Your task to perform on an android device: Go to accessibility settings Image 0: 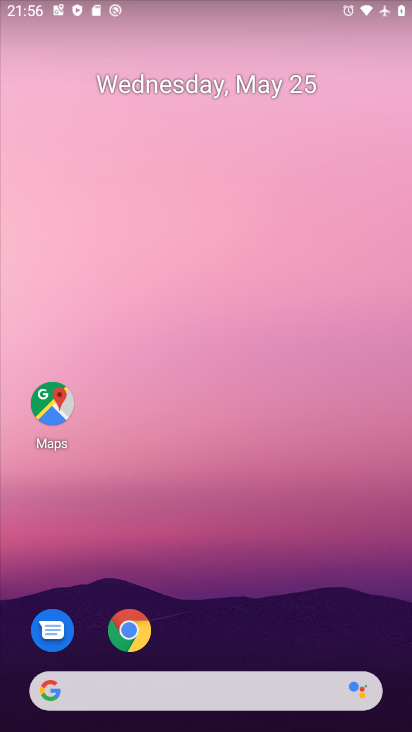
Step 0: drag from (188, 620) to (195, 271)
Your task to perform on an android device: Go to accessibility settings Image 1: 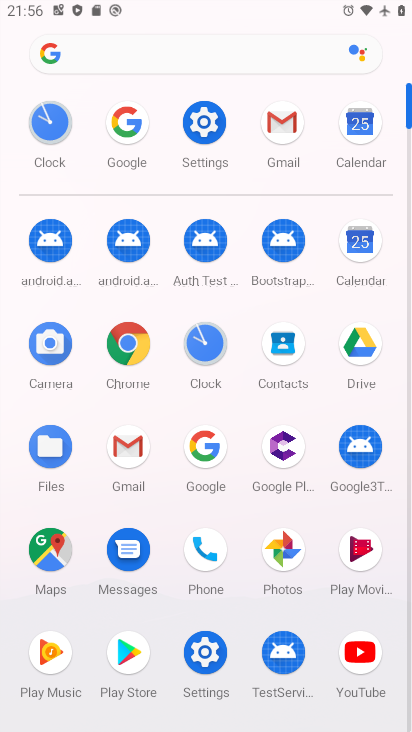
Step 1: click (213, 131)
Your task to perform on an android device: Go to accessibility settings Image 2: 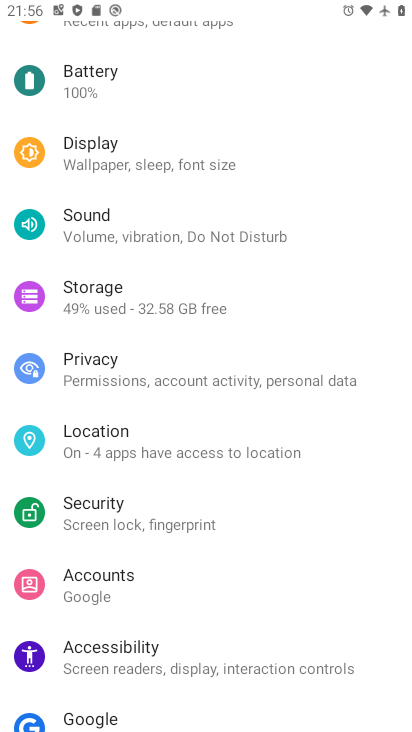
Step 2: click (212, 651)
Your task to perform on an android device: Go to accessibility settings Image 3: 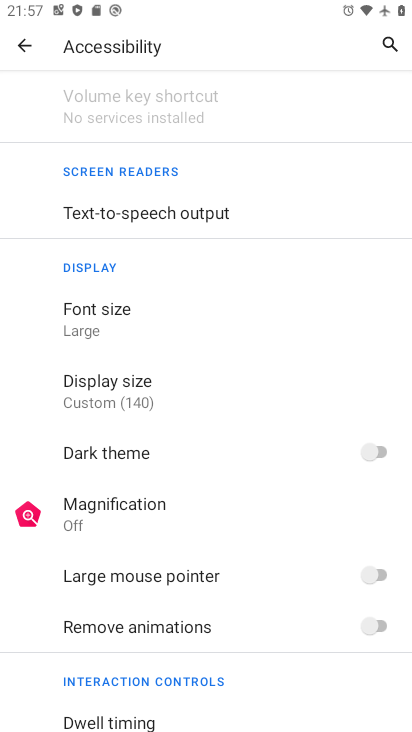
Step 3: task complete